Your task to perform on an android device: Go to calendar. Show me events next week Image 0: 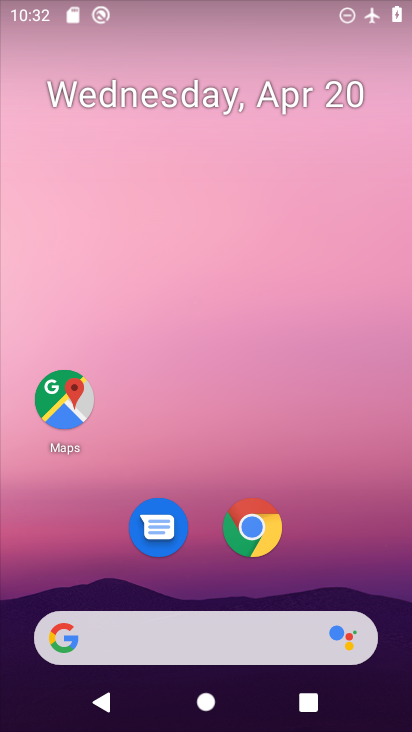
Step 0: drag from (187, 578) to (335, 1)
Your task to perform on an android device: Go to calendar. Show me events next week Image 1: 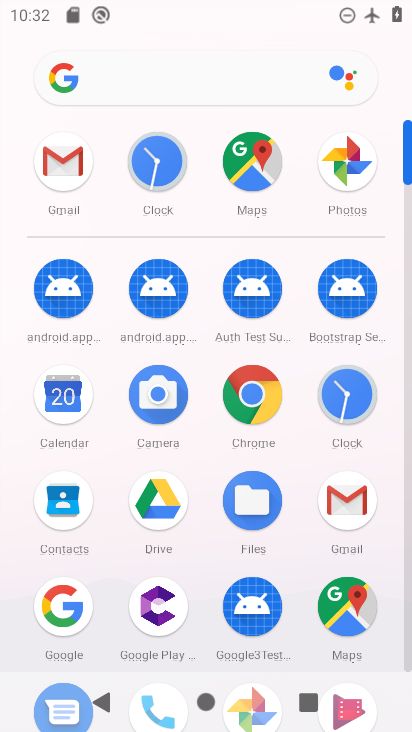
Step 1: click (61, 416)
Your task to perform on an android device: Go to calendar. Show me events next week Image 2: 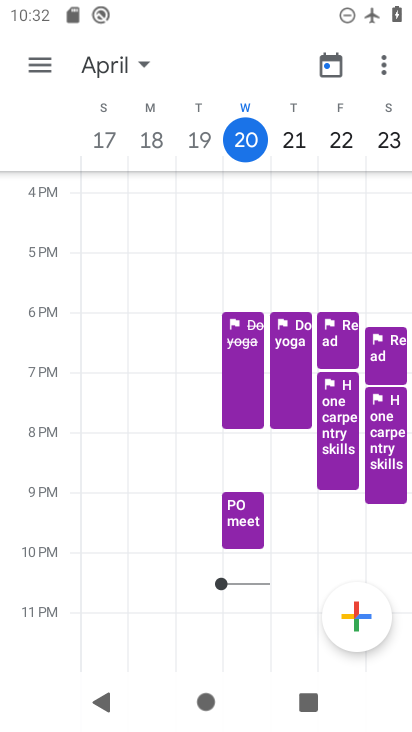
Step 2: drag from (314, 137) to (1, 73)
Your task to perform on an android device: Go to calendar. Show me events next week Image 3: 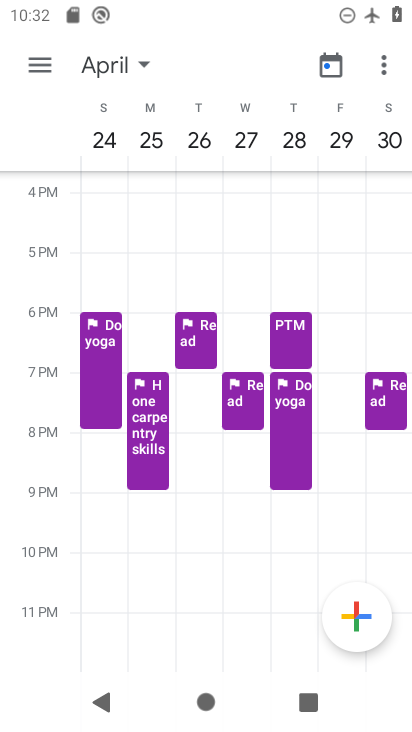
Step 3: click (45, 65)
Your task to perform on an android device: Go to calendar. Show me events next week Image 4: 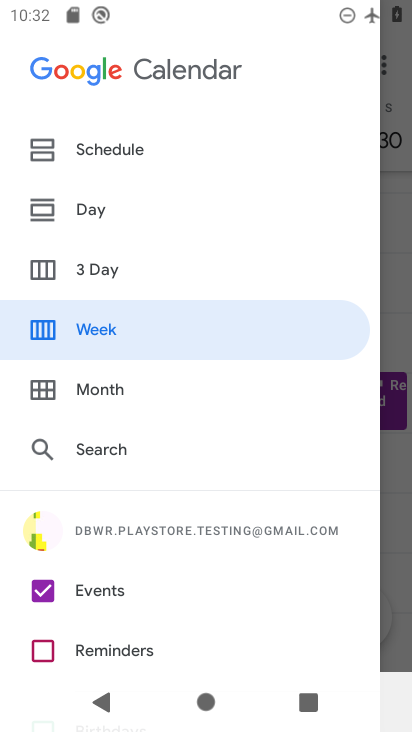
Step 4: click (146, 321)
Your task to perform on an android device: Go to calendar. Show me events next week Image 5: 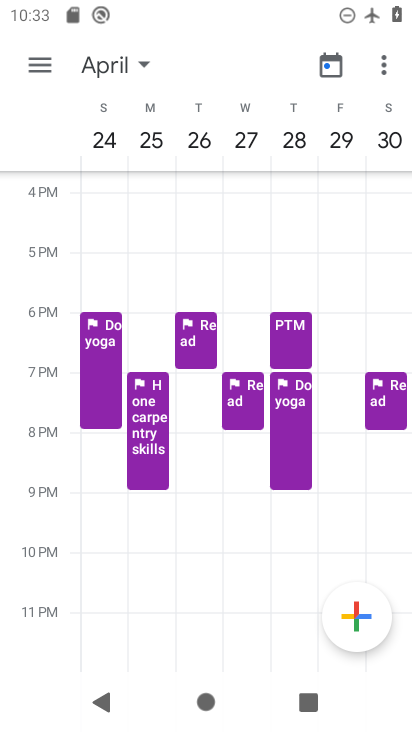
Step 5: task complete